Your task to perform on an android device: Play the latest video from the Wall Street Journal Image 0: 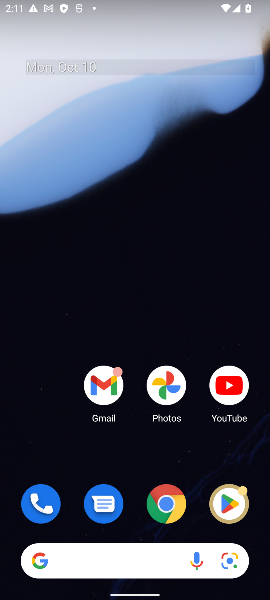
Step 0: drag from (66, 510) to (68, 200)
Your task to perform on an android device: Play the latest video from the Wall Street Journal Image 1: 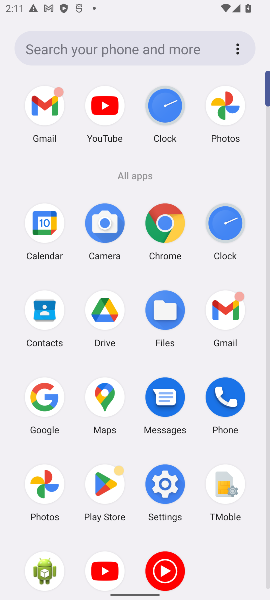
Step 1: click (95, 94)
Your task to perform on an android device: Play the latest video from the Wall Street Journal Image 2: 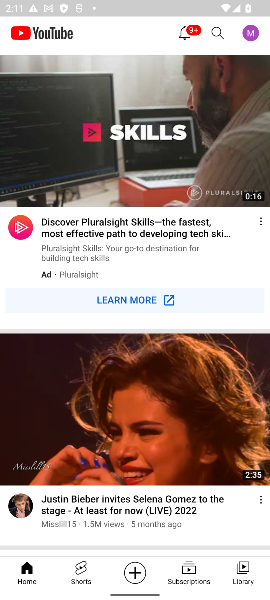
Step 2: click (208, 33)
Your task to perform on an android device: Play the latest video from the Wall Street Journal Image 3: 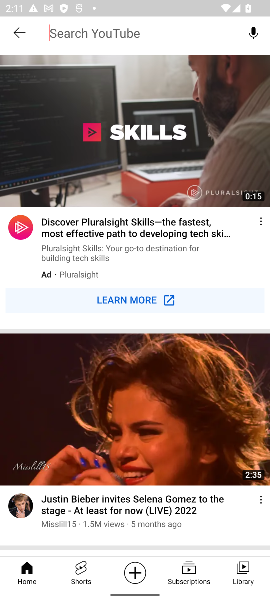
Step 3: click (219, 30)
Your task to perform on an android device: Play the latest video from the Wall Street Journal Image 4: 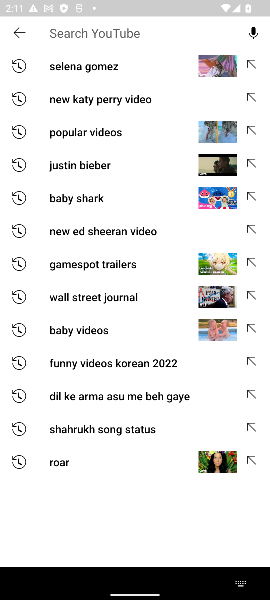
Step 4: type "Play the latest video from the Wall Street Journal"
Your task to perform on an android device: Play the latest video from the Wall Street Journal Image 5: 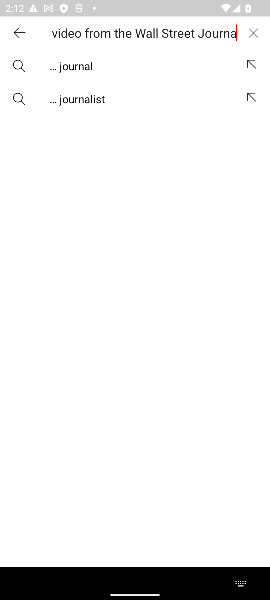
Step 5: press enter
Your task to perform on an android device: Play the latest video from the Wall Street Journal Image 6: 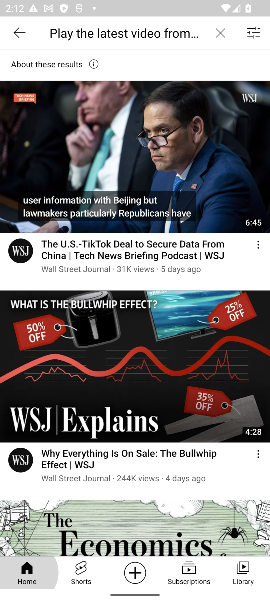
Step 6: click (134, 182)
Your task to perform on an android device: Play the latest video from the Wall Street Journal Image 7: 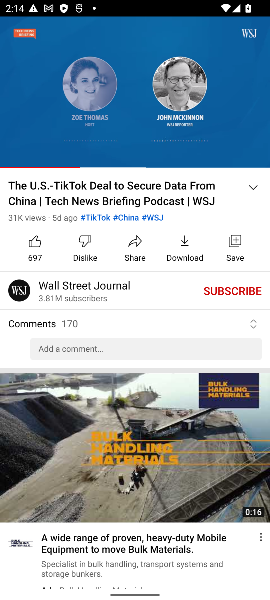
Step 7: task complete